Your task to perform on an android device: Search for Mexican restaurants on Maps Image 0: 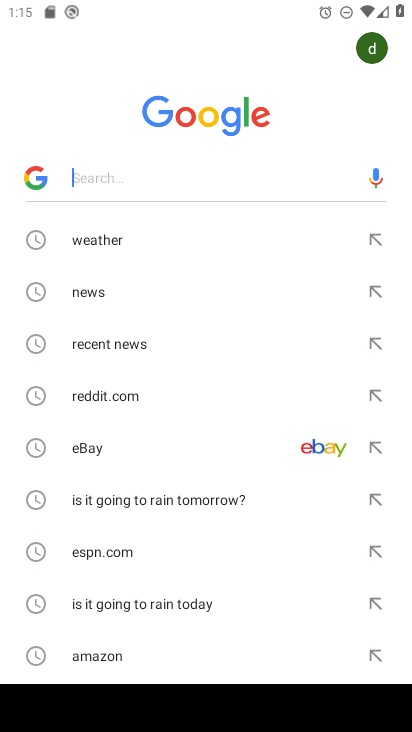
Step 0: press home button
Your task to perform on an android device: Search for Mexican restaurants on Maps Image 1: 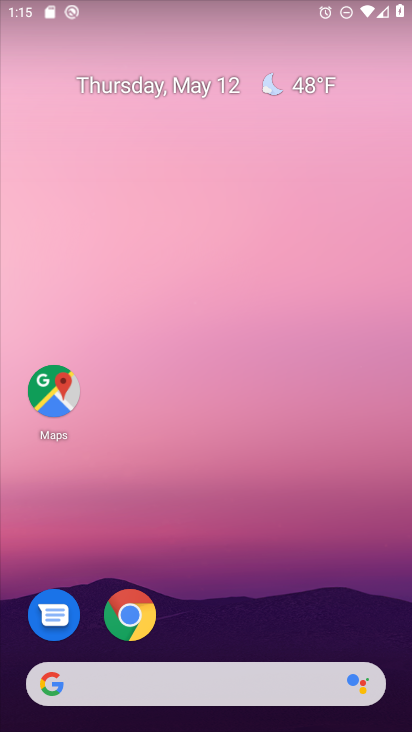
Step 1: drag from (286, 582) to (409, 286)
Your task to perform on an android device: Search for Mexican restaurants on Maps Image 2: 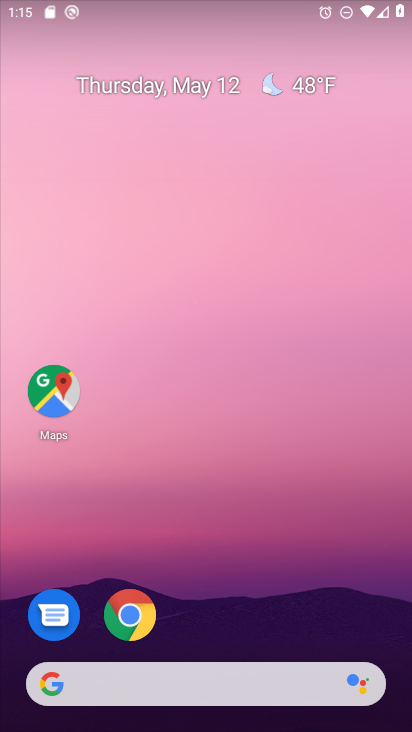
Step 2: drag from (285, 639) to (299, 2)
Your task to perform on an android device: Search for Mexican restaurants on Maps Image 3: 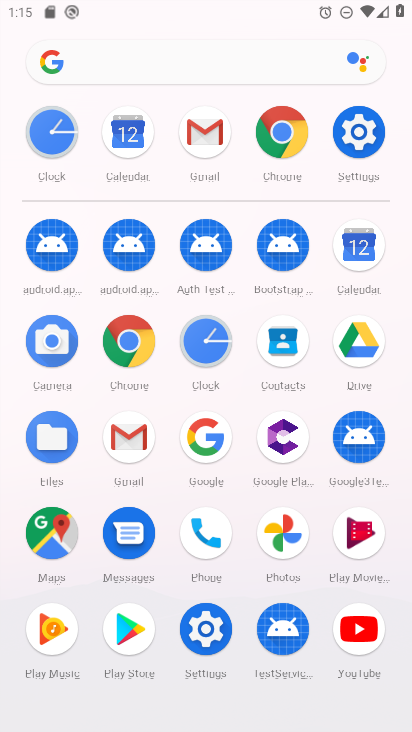
Step 3: click (30, 536)
Your task to perform on an android device: Search for Mexican restaurants on Maps Image 4: 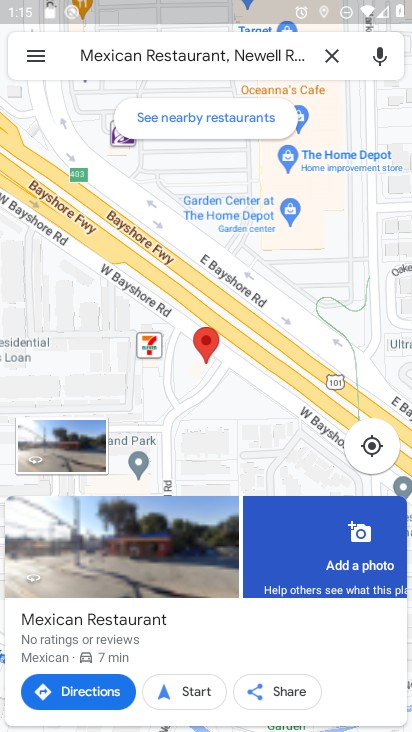
Step 4: task complete